Your task to perform on an android device: toggle translation in the chrome app Image 0: 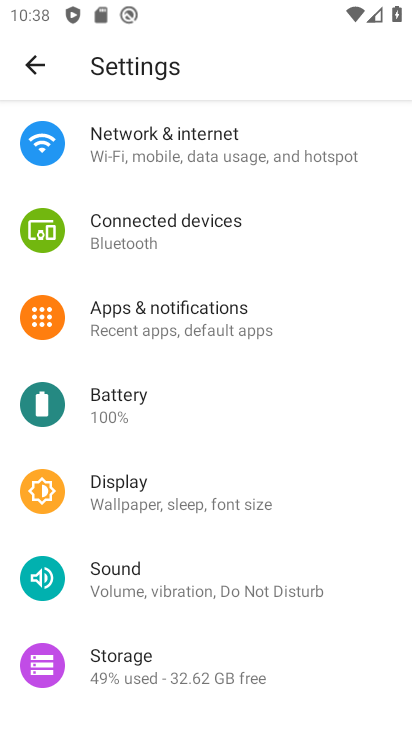
Step 0: press home button
Your task to perform on an android device: toggle translation in the chrome app Image 1: 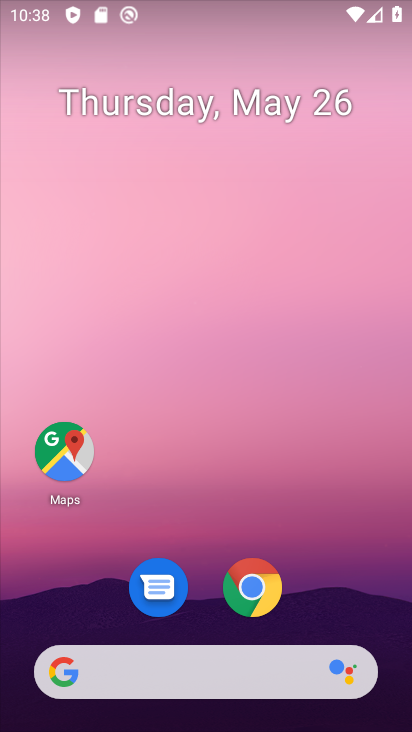
Step 1: drag from (274, 710) to (231, 129)
Your task to perform on an android device: toggle translation in the chrome app Image 2: 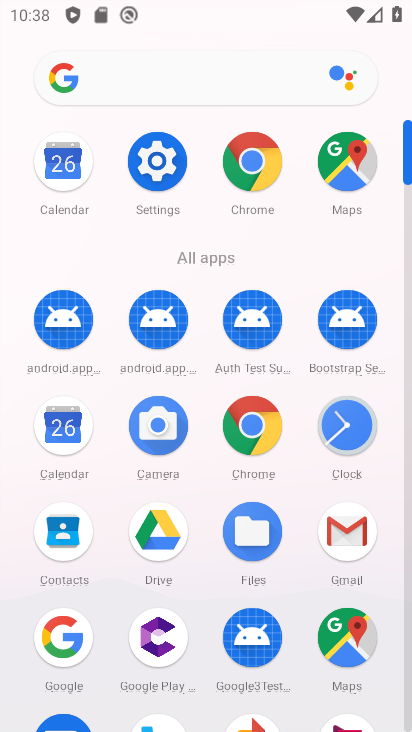
Step 2: click (240, 175)
Your task to perform on an android device: toggle translation in the chrome app Image 3: 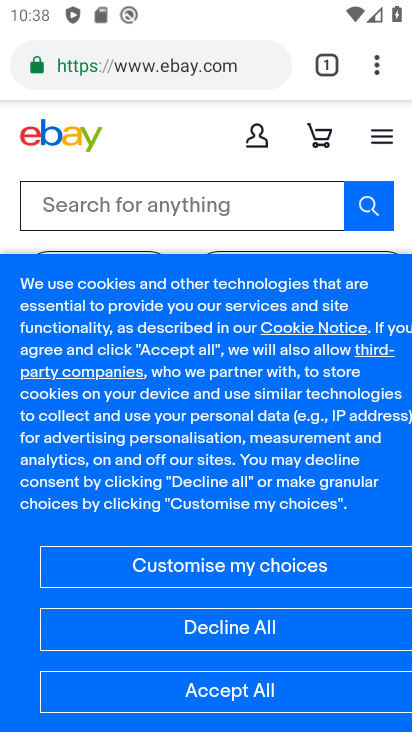
Step 3: click (376, 63)
Your task to perform on an android device: toggle translation in the chrome app Image 4: 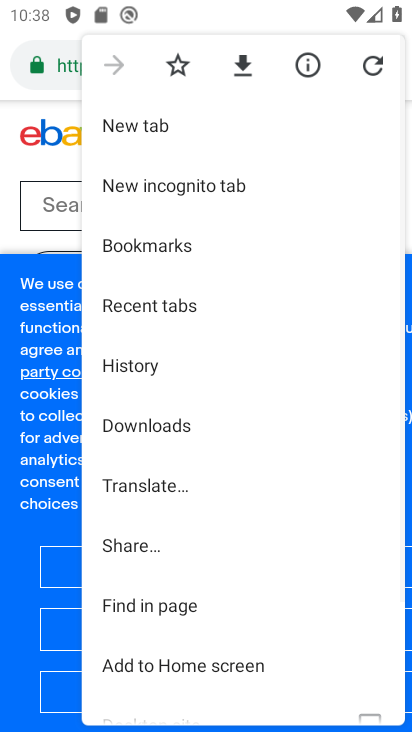
Step 4: drag from (204, 572) to (227, 246)
Your task to perform on an android device: toggle translation in the chrome app Image 5: 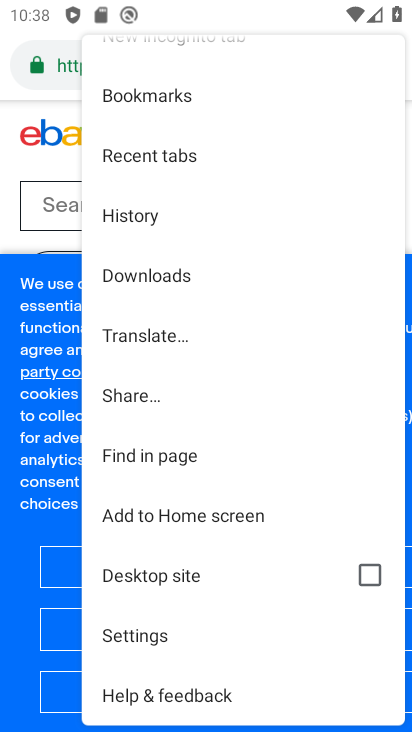
Step 5: click (182, 631)
Your task to perform on an android device: toggle translation in the chrome app Image 6: 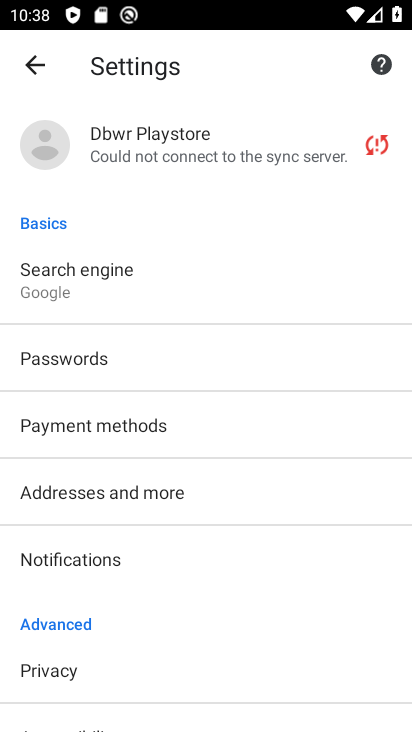
Step 6: drag from (174, 617) to (206, 324)
Your task to perform on an android device: toggle translation in the chrome app Image 7: 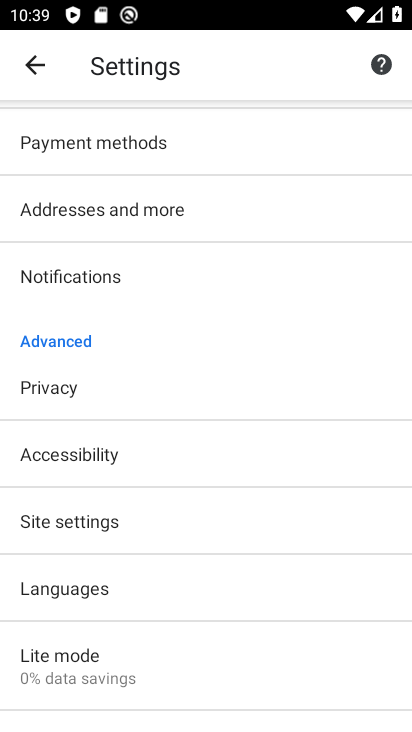
Step 7: drag from (148, 559) to (411, 523)
Your task to perform on an android device: toggle translation in the chrome app Image 8: 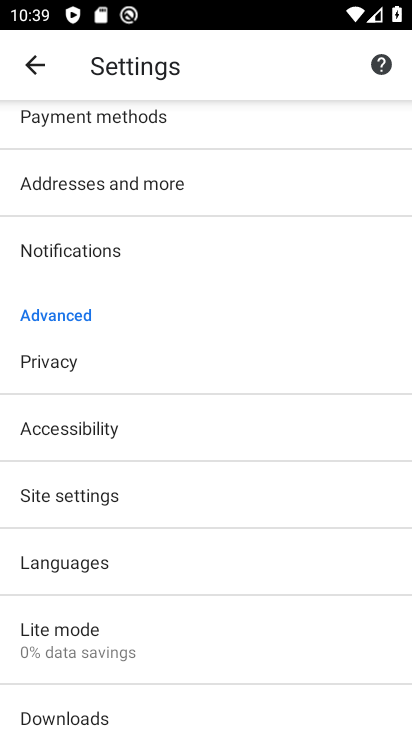
Step 8: click (108, 570)
Your task to perform on an android device: toggle translation in the chrome app Image 9: 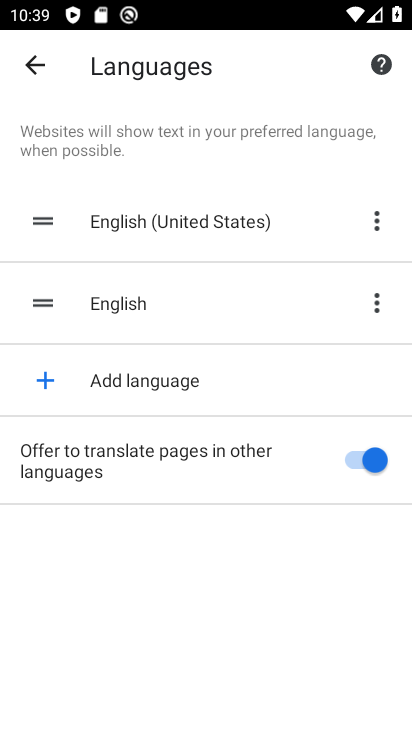
Step 9: task complete